Your task to perform on an android device: What's on my calendar tomorrow? Image 0: 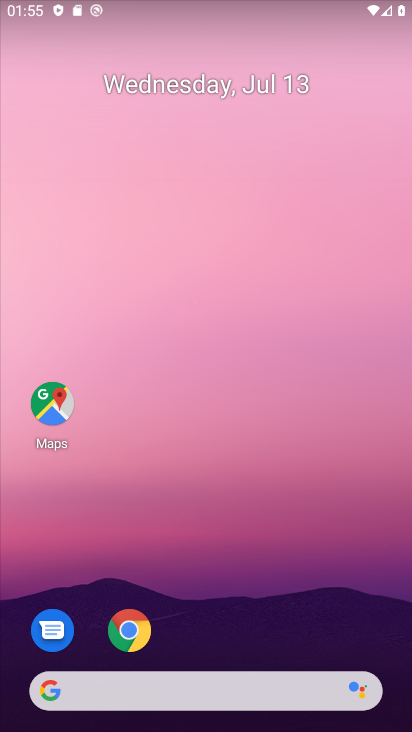
Step 0: drag from (211, 628) to (179, 220)
Your task to perform on an android device: What's on my calendar tomorrow? Image 1: 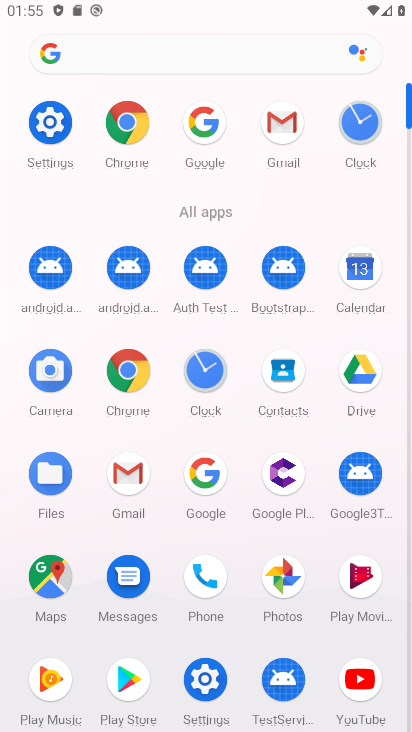
Step 1: click (345, 290)
Your task to perform on an android device: What's on my calendar tomorrow? Image 2: 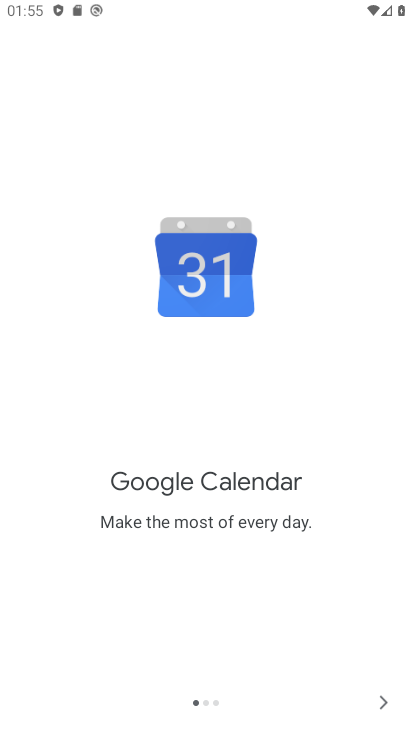
Step 2: click (378, 699)
Your task to perform on an android device: What's on my calendar tomorrow? Image 3: 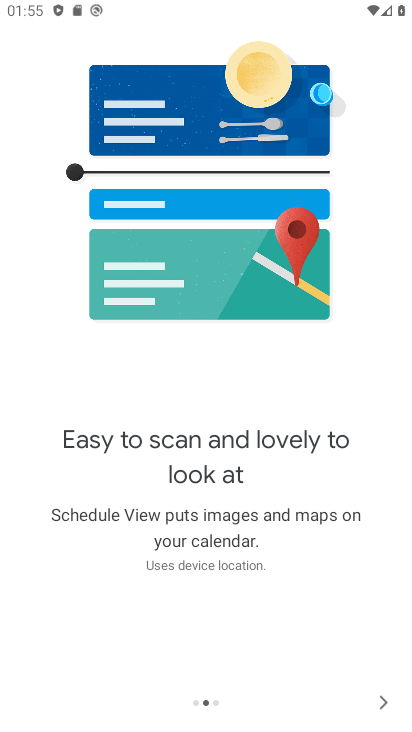
Step 3: click (378, 699)
Your task to perform on an android device: What's on my calendar tomorrow? Image 4: 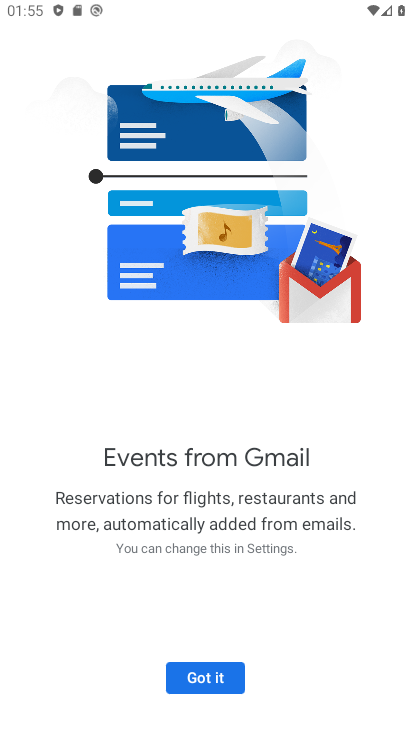
Step 4: click (220, 683)
Your task to perform on an android device: What's on my calendar tomorrow? Image 5: 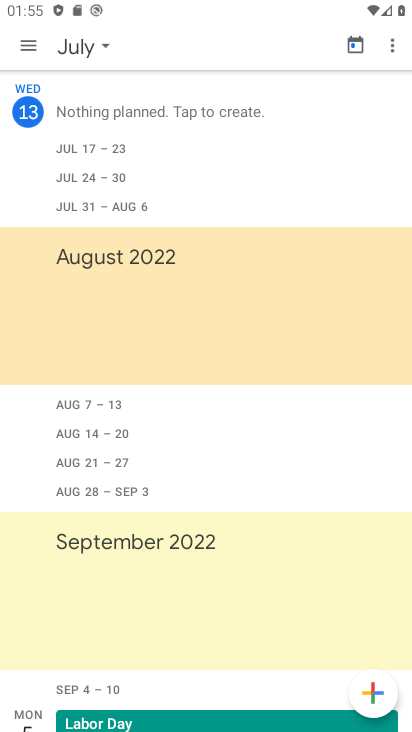
Step 5: click (100, 49)
Your task to perform on an android device: What's on my calendar tomorrow? Image 6: 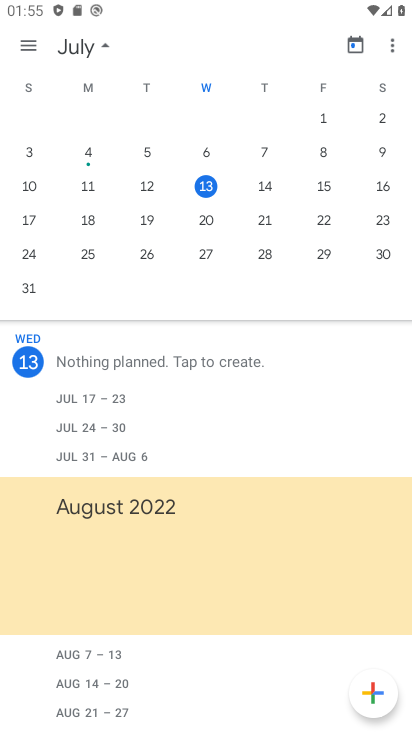
Step 6: click (265, 182)
Your task to perform on an android device: What's on my calendar tomorrow? Image 7: 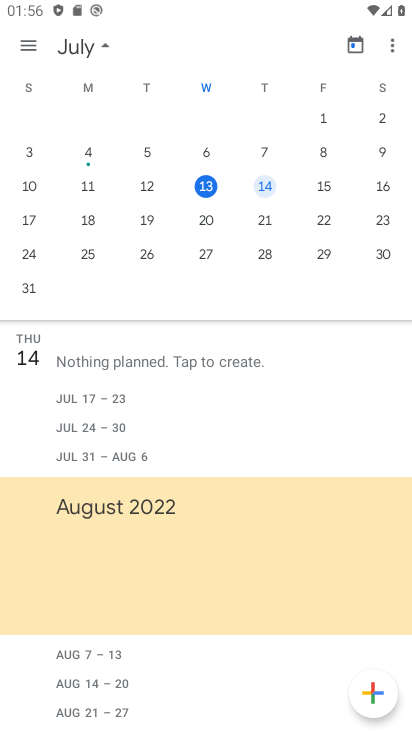
Step 7: task complete